Your task to perform on an android device: Open Amazon Image 0: 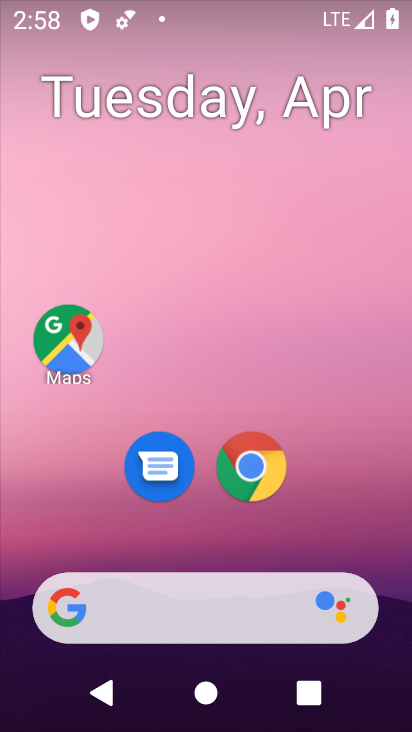
Step 0: drag from (203, 555) to (271, 10)
Your task to perform on an android device: Open Amazon Image 1: 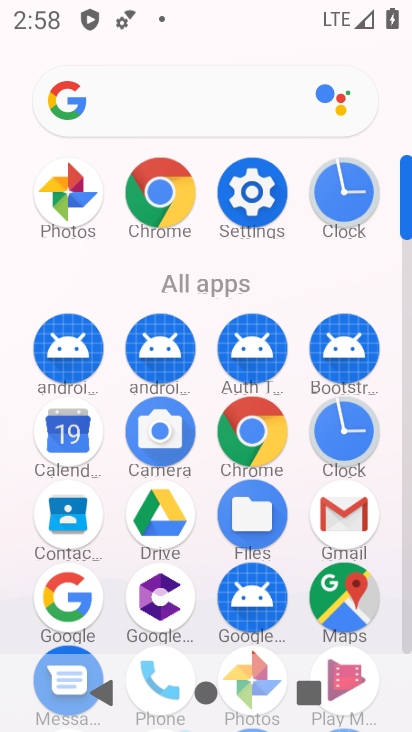
Step 1: click (256, 432)
Your task to perform on an android device: Open Amazon Image 2: 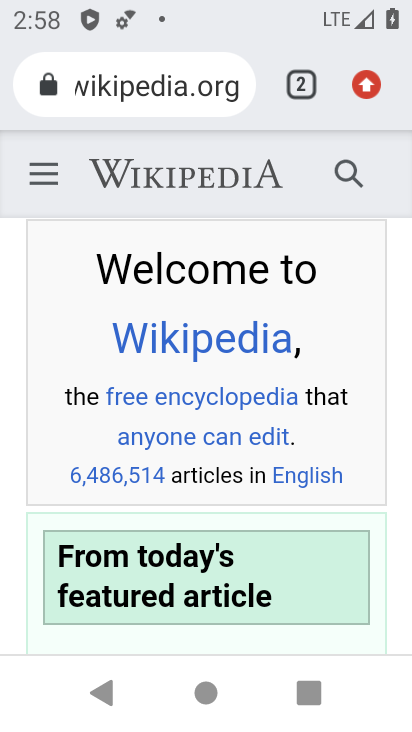
Step 2: click (299, 87)
Your task to perform on an android device: Open Amazon Image 3: 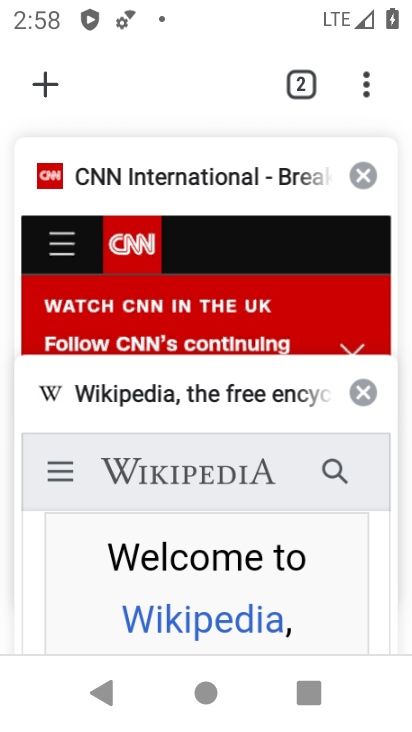
Step 3: click (52, 72)
Your task to perform on an android device: Open Amazon Image 4: 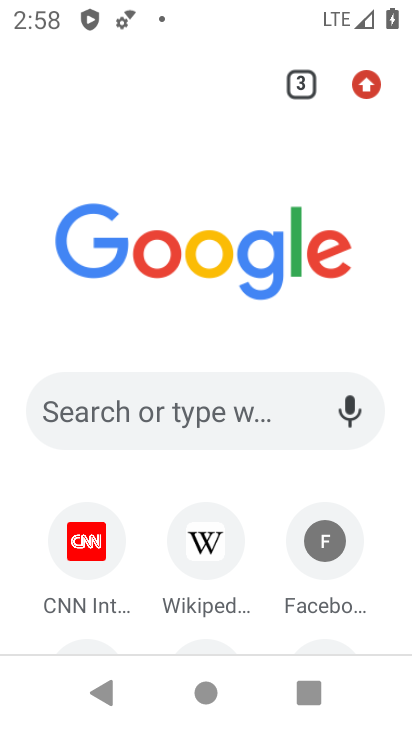
Step 4: drag from (267, 591) to (250, 324)
Your task to perform on an android device: Open Amazon Image 5: 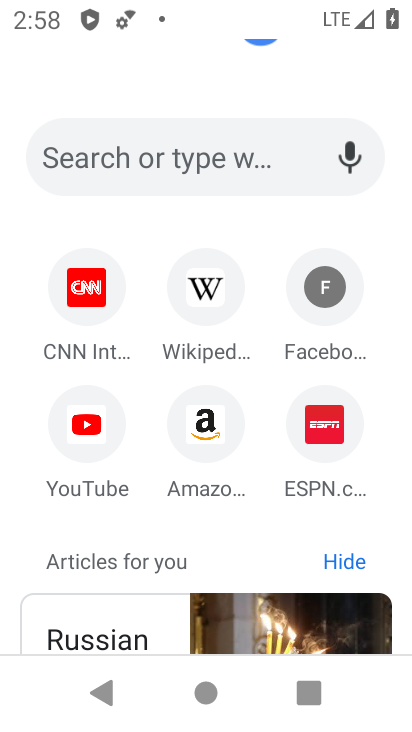
Step 5: click (206, 432)
Your task to perform on an android device: Open Amazon Image 6: 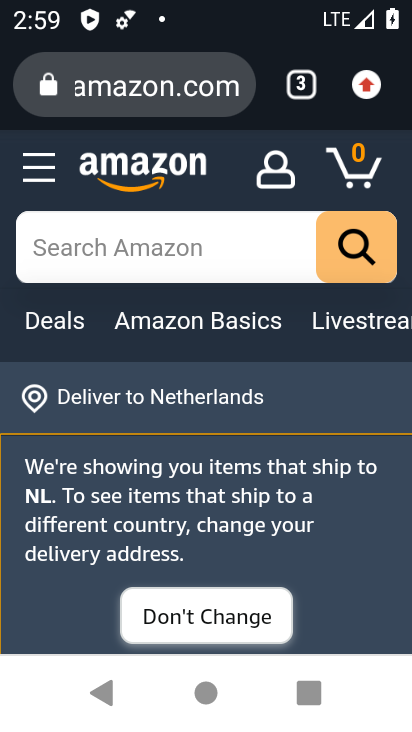
Step 6: task complete